Your task to perform on an android device: check data usage Image 0: 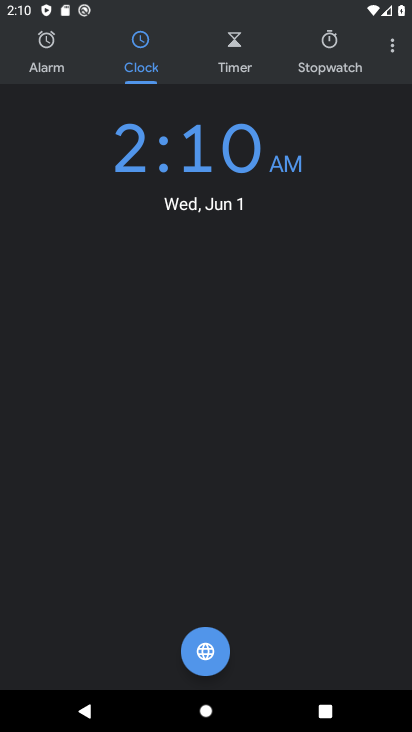
Step 0: press home button
Your task to perform on an android device: check data usage Image 1: 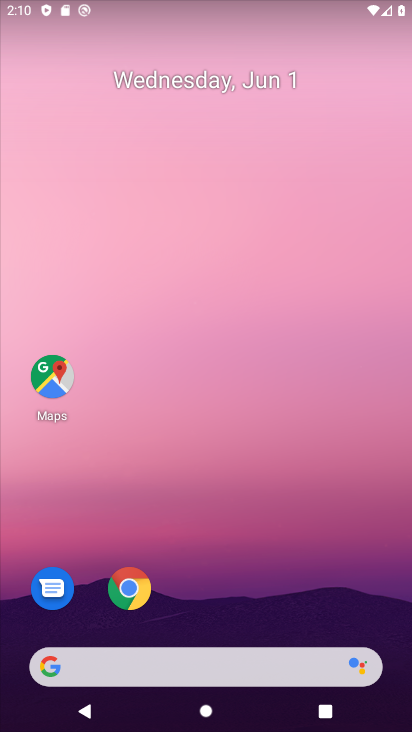
Step 1: drag from (270, 573) to (369, 147)
Your task to perform on an android device: check data usage Image 2: 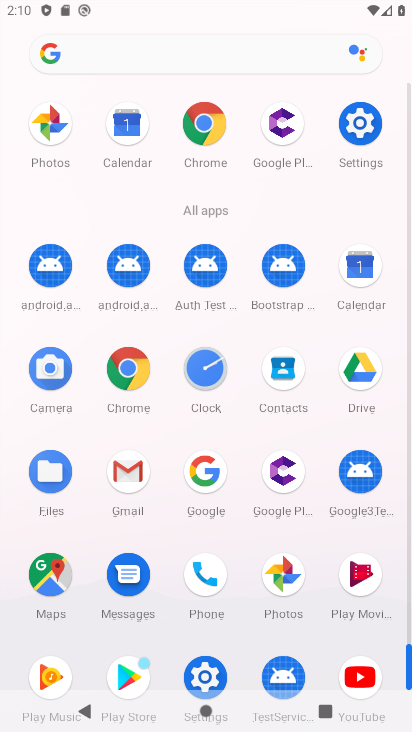
Step 2: drag from (198, 593) to (241, 349)
Your task to perform on an android device: check data usage Image 3: 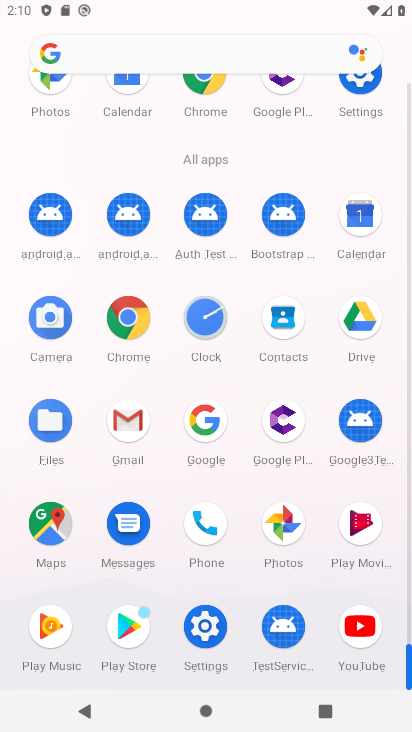
Step 3: click (219, 604)
Your task to perform on an android device: check data usage Image 4: 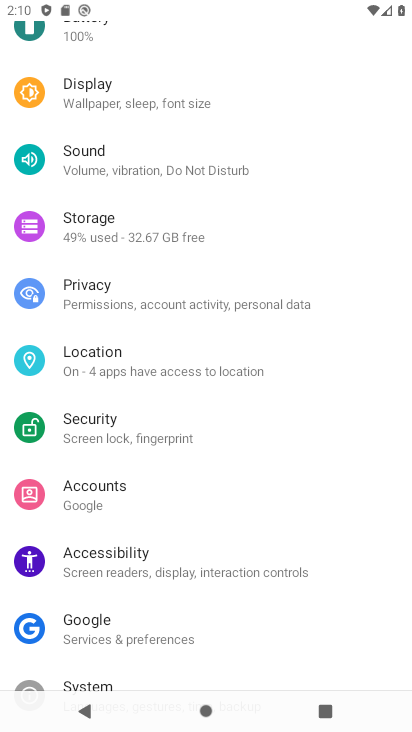
Step 4: drag from (275, 249) to (244, 643)
Your task to perform on an android device: check data usage Image 5: 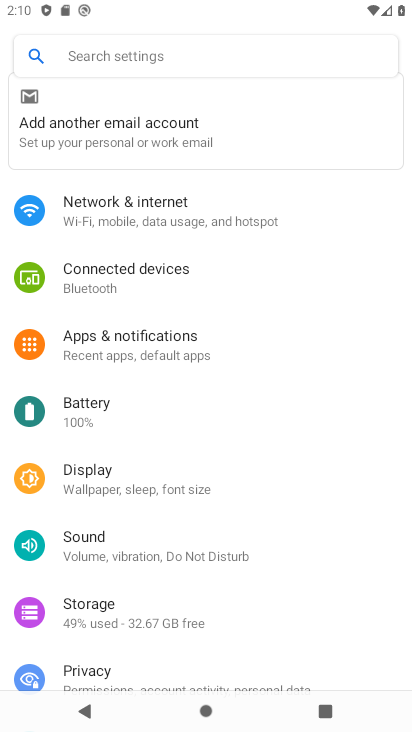
Step 5: click (228, 215)
Your task to perform on an android device: check data usage Image 6: 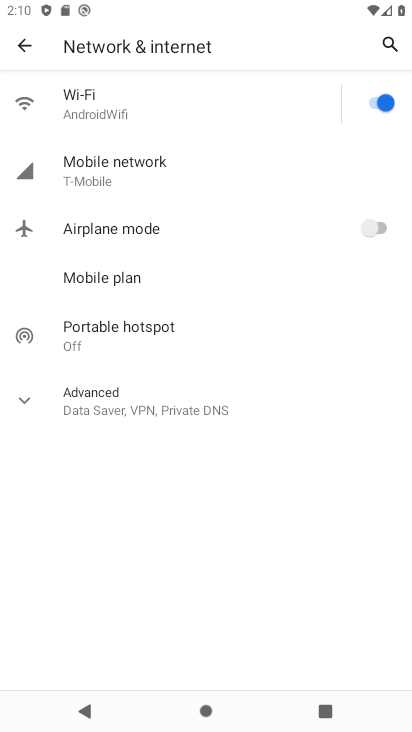
Step 6: click (181, 182)
Your task to perform on an android device: check data usage Image 7: 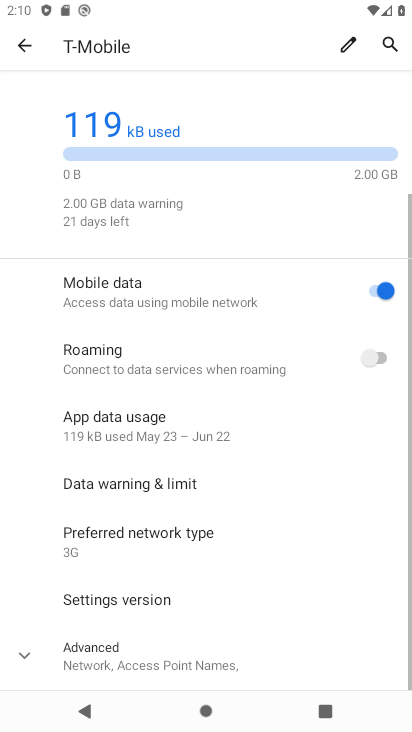
Step 7: drag from (188, 584) to (238, 384)
Your task to perform on an android device: check data usage Image 8: 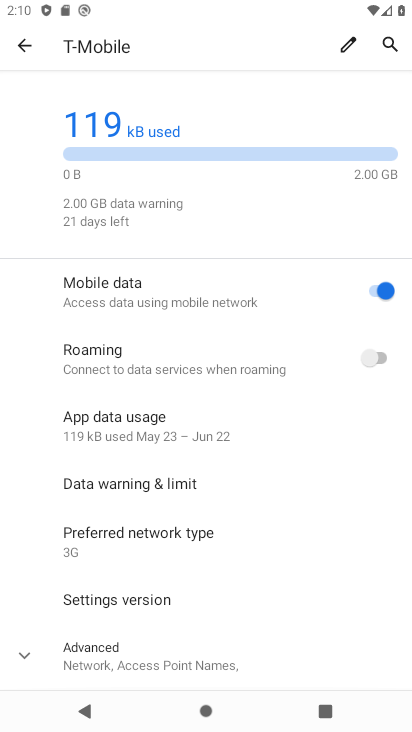
Step 8: click (200, 421)
Your task to perform on an android device: check data usage Image 9: 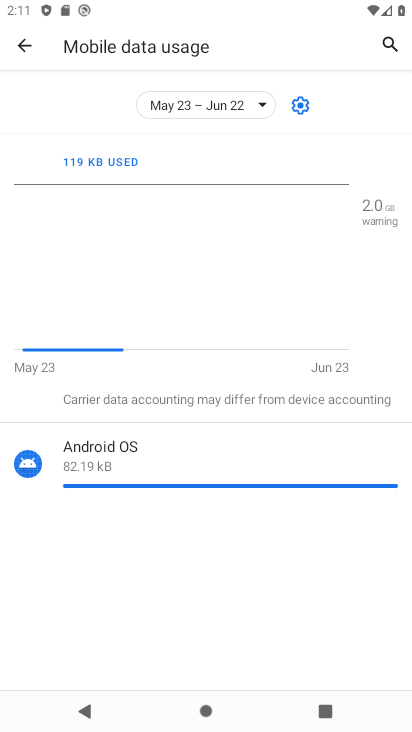
Step 9: task complete